Your task to perform on an android device: add a label to a message in the gmail app Image 0: 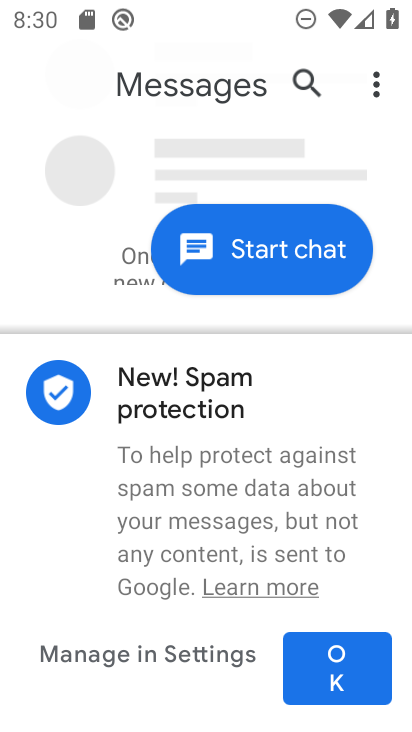
Step 0: press back button
Your task to perform on an android device: add a label to a message in the gmail app Image 1: 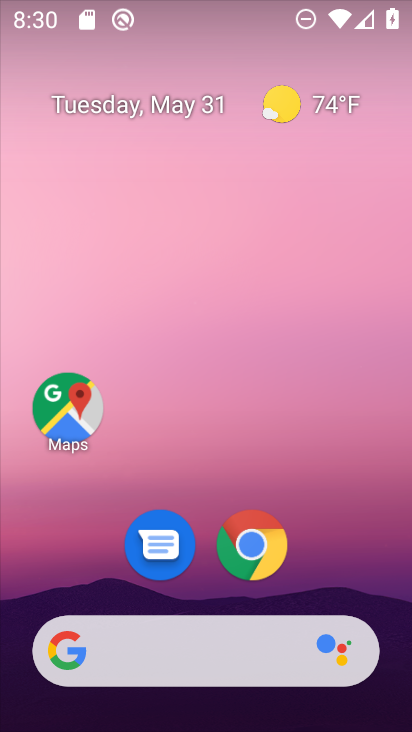
Step 1: drag from (377, 593) to (217, 9)
Your task to perform on an android device: add a label to a message in the gmail app Image 2: 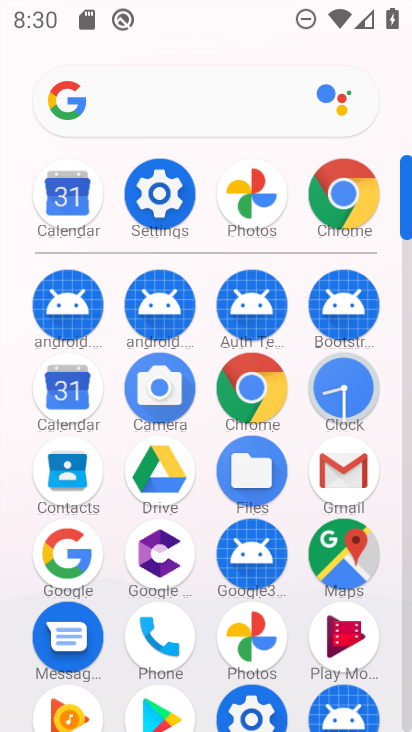
Step 2: drag from (14, 594) to (5, 224)
Your task to perform on an android device: add a label to a message in the gmail app Image 3: 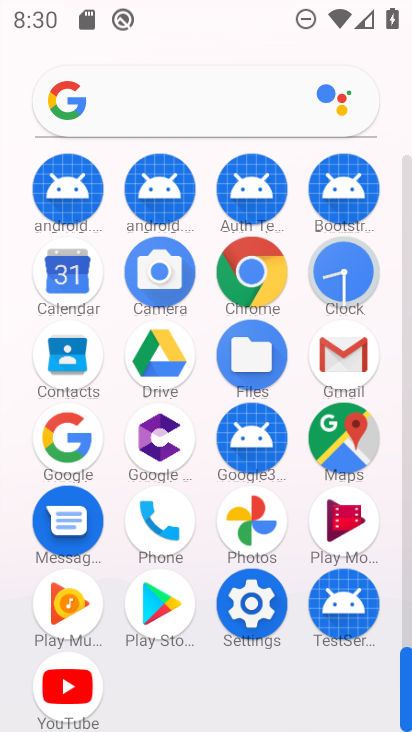
Step 3: click (336, 350)
Your task to perform on an android device: add a label to a message in the gmail app Image 4: 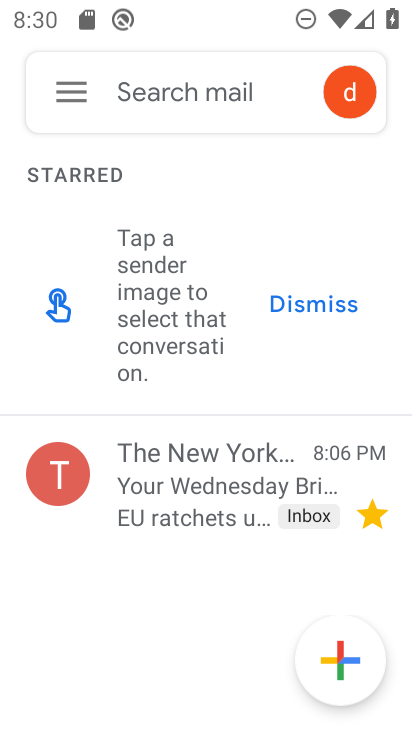
Step 4: click (168, 494)
Your task to perform on an android device: add a label to a message in the gmail app Image 5: 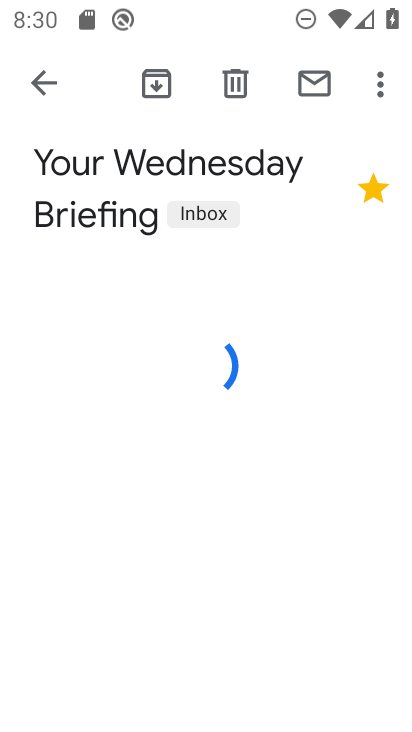
Step 5: click (212, 213)
Your task to perform on an android device: add a label to a message in the gmail app Image 6: 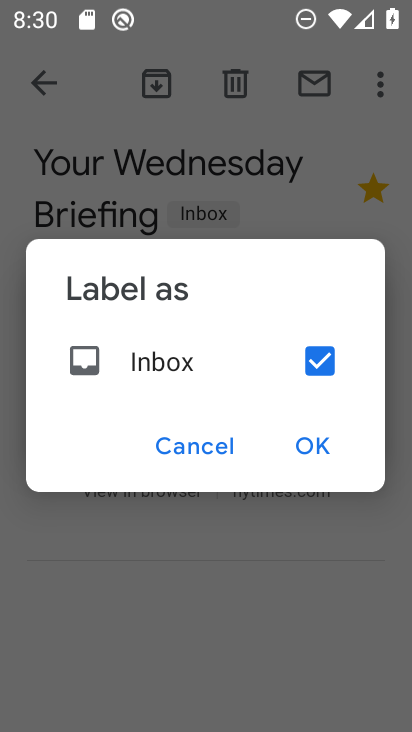
Step 6: click (317, 366)
Your task to perform on an android device: add a label to a message in the gmail app Image 7: 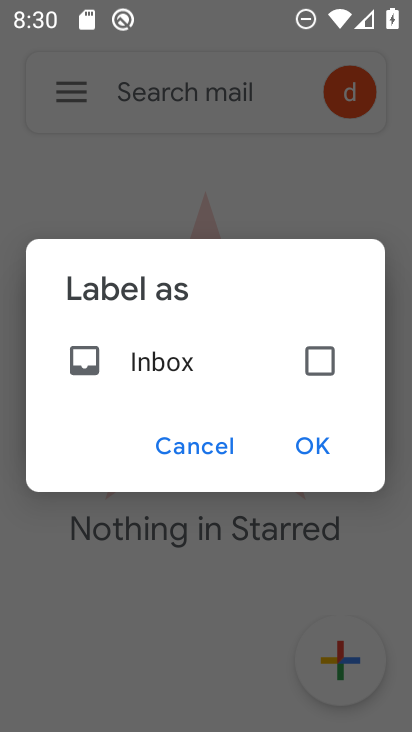
Step 7: click (315, 443)
Your task to perform on an android device: add a label to a message in the gmail app Image 8: 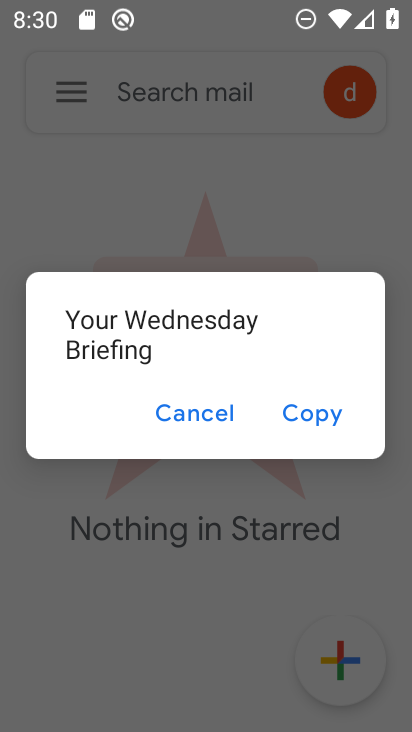
Step 8: click (315, 417)
Your task to perform on an android device: add a label to a message in the gmail app Image 9: 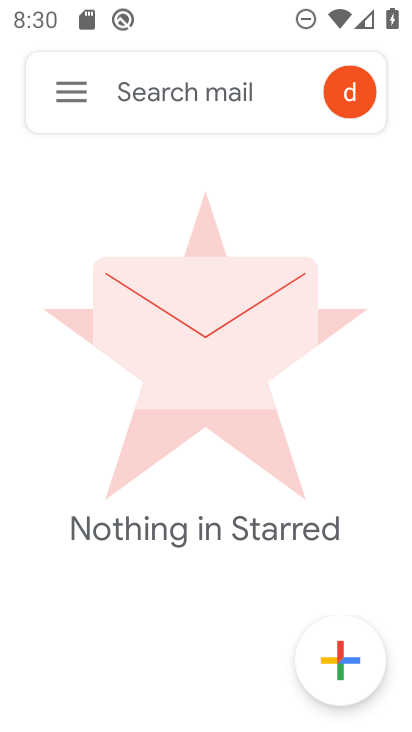
Step 9: task complete